Your task to perform on an android device: see creations saved in the google photos Image 0: 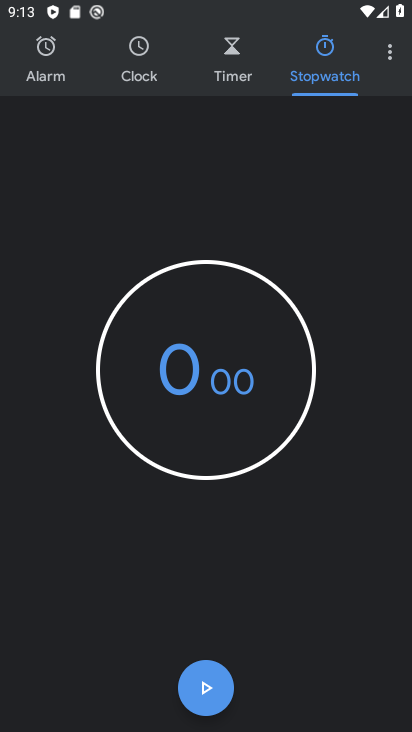
Step 0: press home button
Your task to perform on an android device: see creations saved in the google photos Image 1: 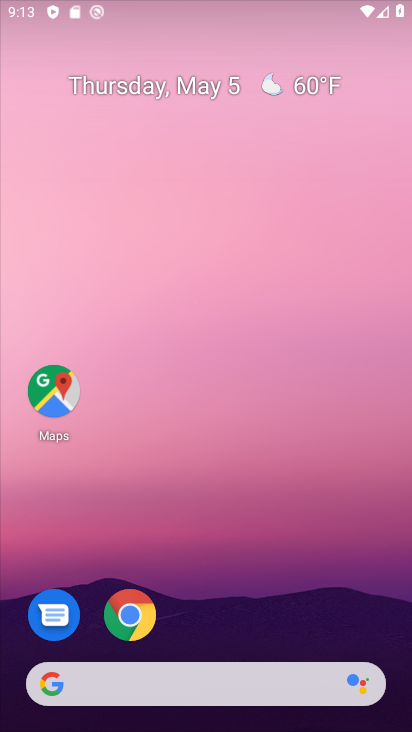
Step 1: drag from (229, 591) to (372, 103)
Your task to perform on an android device: see creations saved in the google photos Image 2: 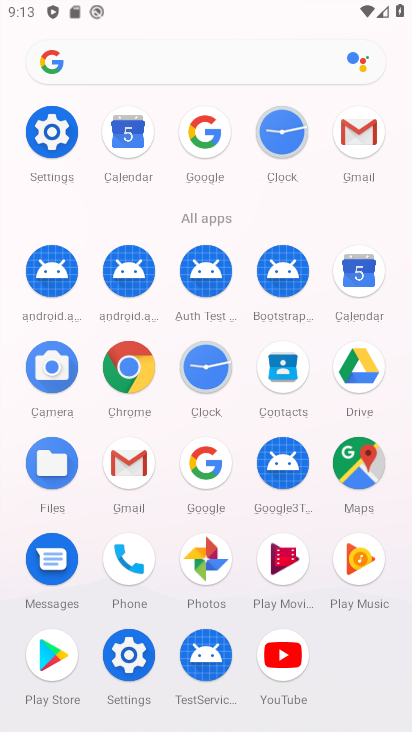
Step 2: click (212, 553)
Your task to perform on an android device: see creations saved in the google photos Image 3: 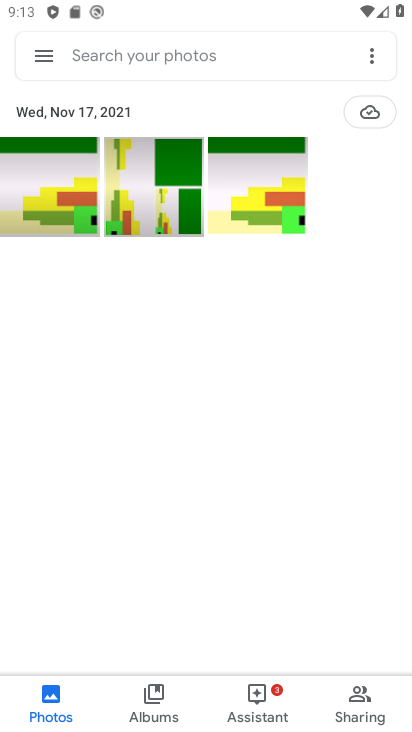
Step 3: click (210, 48)
Your task to perform on an android device: see creations saved in the google photos Image 4: 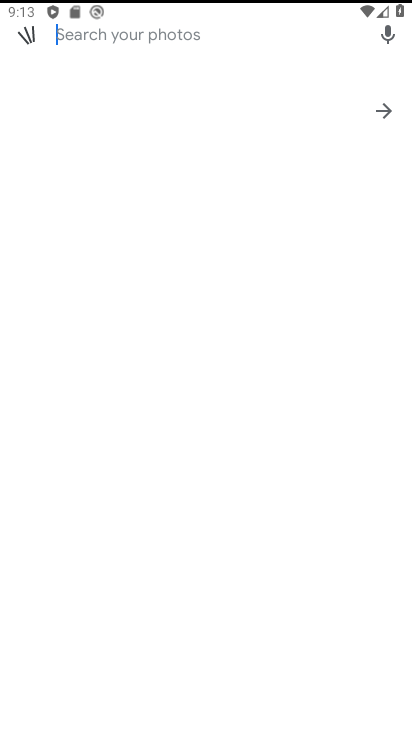
Step 4: click (204, 53)
Your task to perform on an android device: see creations saved in the google photos Image 5: 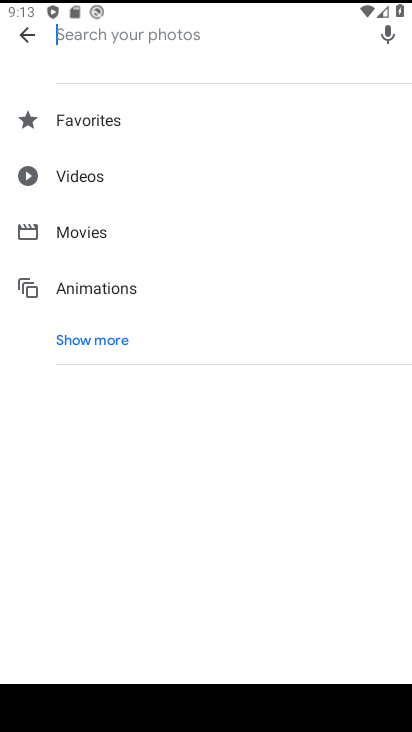
Step 5: click (91, 342)
Your task to perform on an android device: see creations saved in the google photos Image 6: 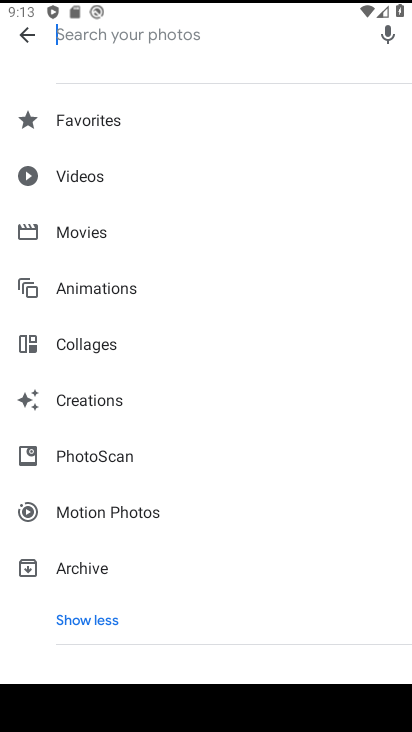
Step 6: click (83, 412)
Your task to perform on an android device: see creations saved in the google photos Image 7: 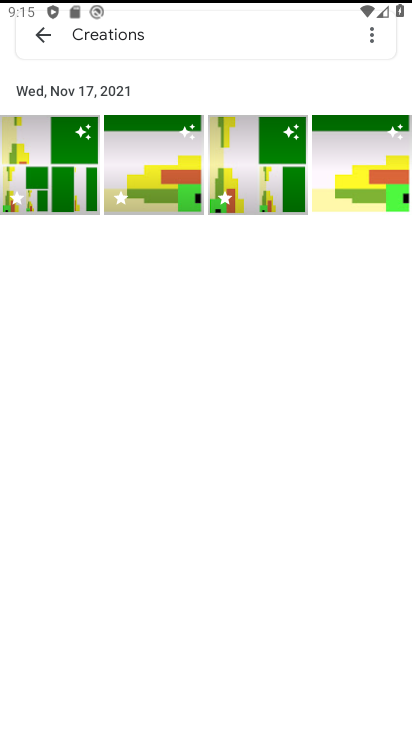
Step 7: task complete